Your task to perform on an android device: open wifi settings Image 0: 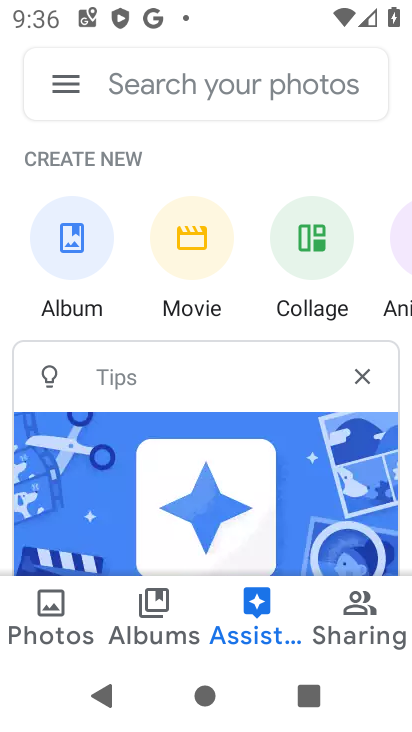
Step 0: press home button
Your task to perform on an android device: open wifi settings Image 1: 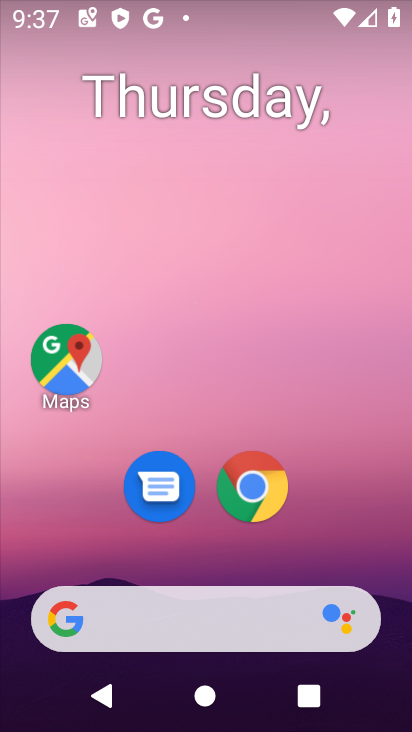
Step 1: drag from (215, 548) to (177, 17)
Your task to perform on an android device: open wifi settings Image 2: 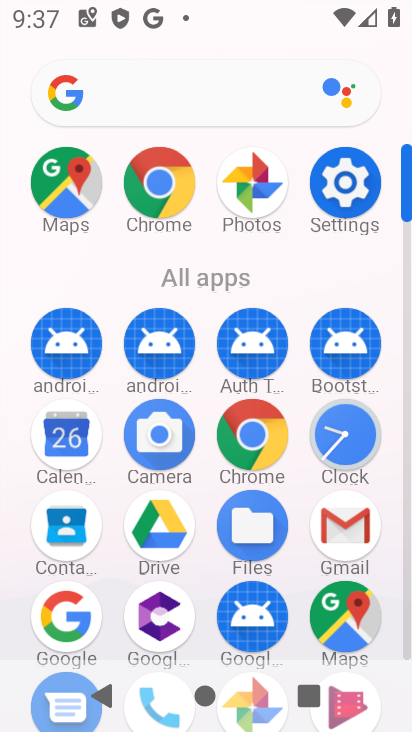
Step 2: click (336, 180)
Your task to perform on an android device: open wifi settings Image 3: 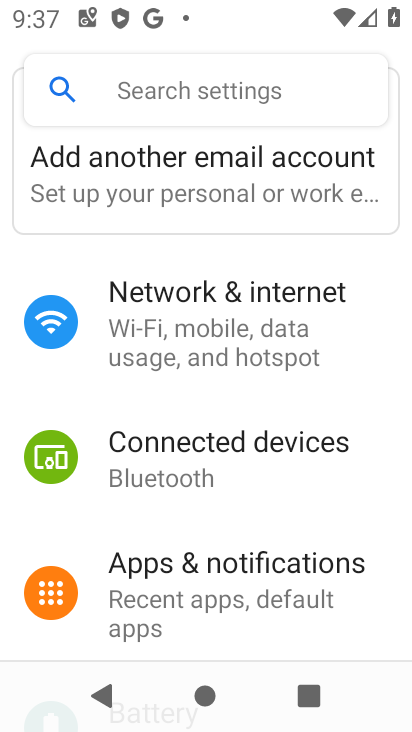
Step 3: click (168, 327)
Your task to perform on an android device: open wifi settings Image 4: 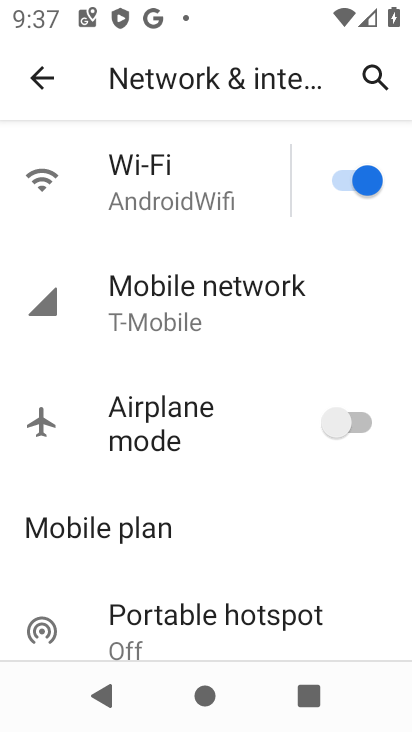
Step 4: click (127, 182)
Your task to perform on an android device: open wifi settings Image 5: 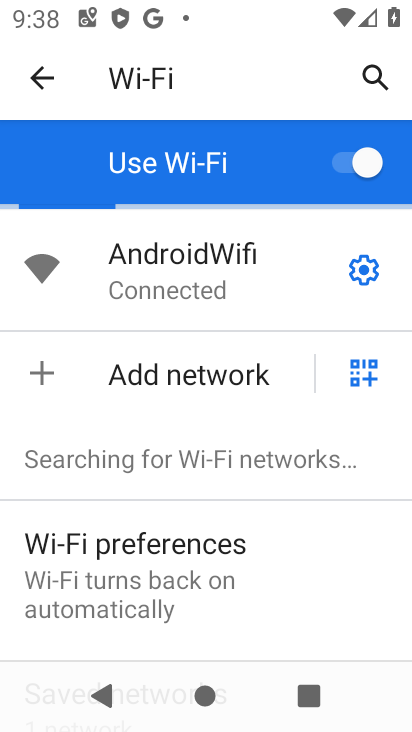
Step 5: task complete